Your task to perform on an android device: choose inbox layout in the gmail app Image 0: 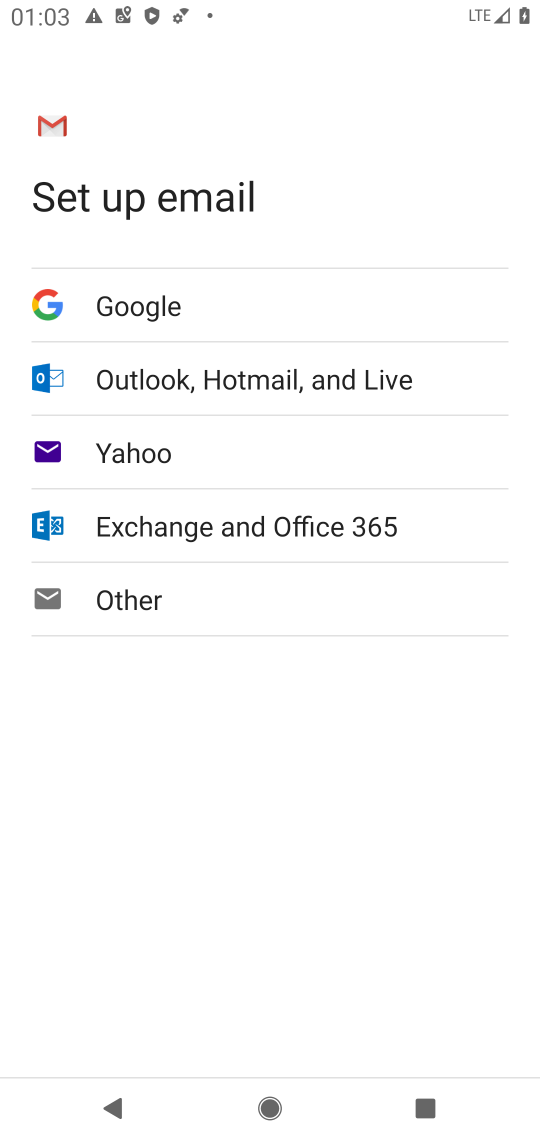
Step 0: press home button
Your task to perform on an android device: choose inbox layout in the gmail app Image 1: 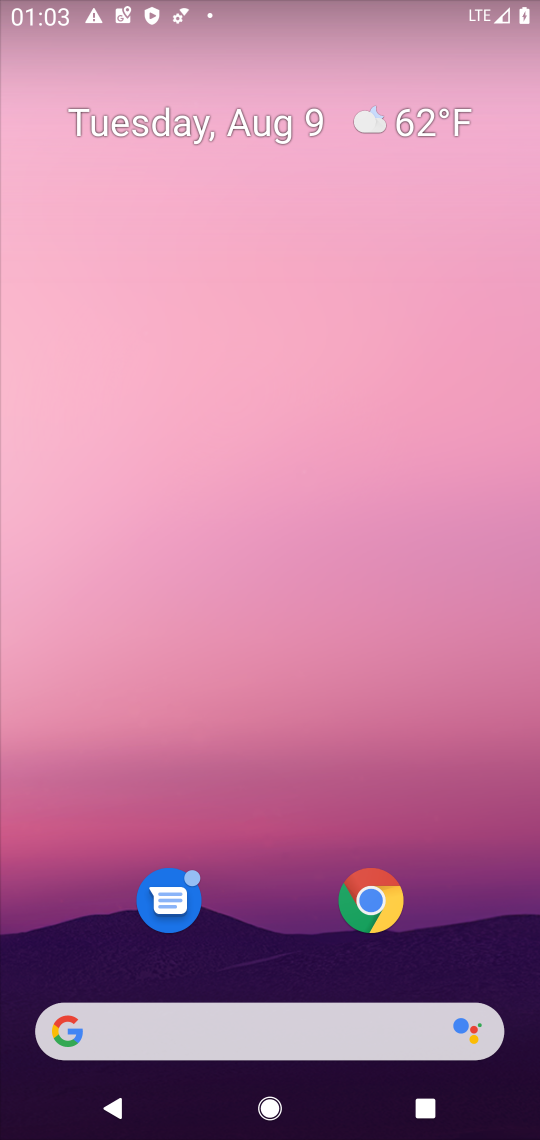
Step 1: drag from (282, 964) to (361, 255)
Your task to perform on an android device: choose inbox layout in the gmail app Image 2: 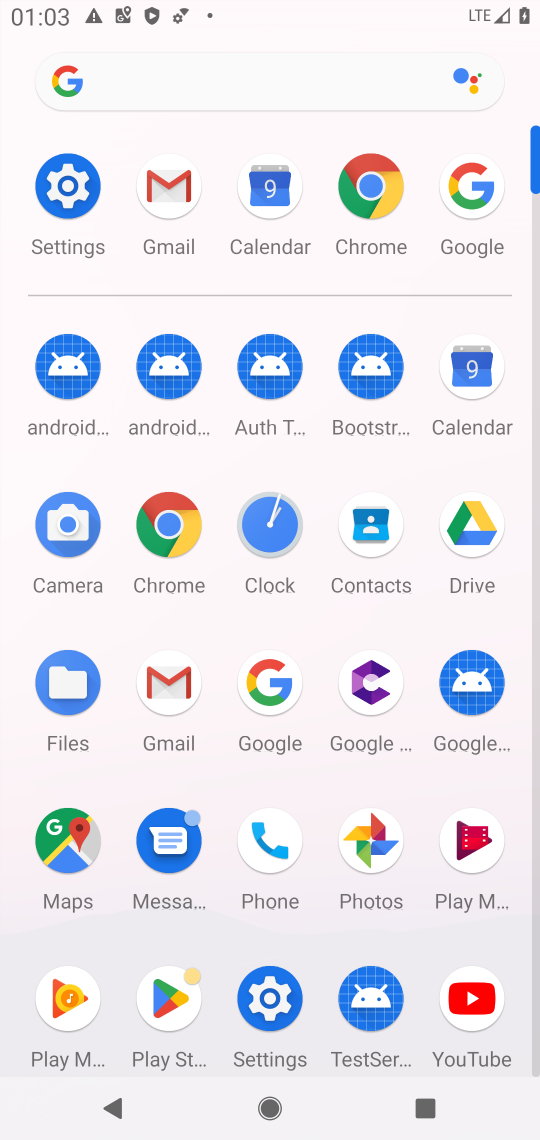
Step 2: click (171, 183)
Your task to perform on an android device: choose inbox layout in the gmail app Image 3: 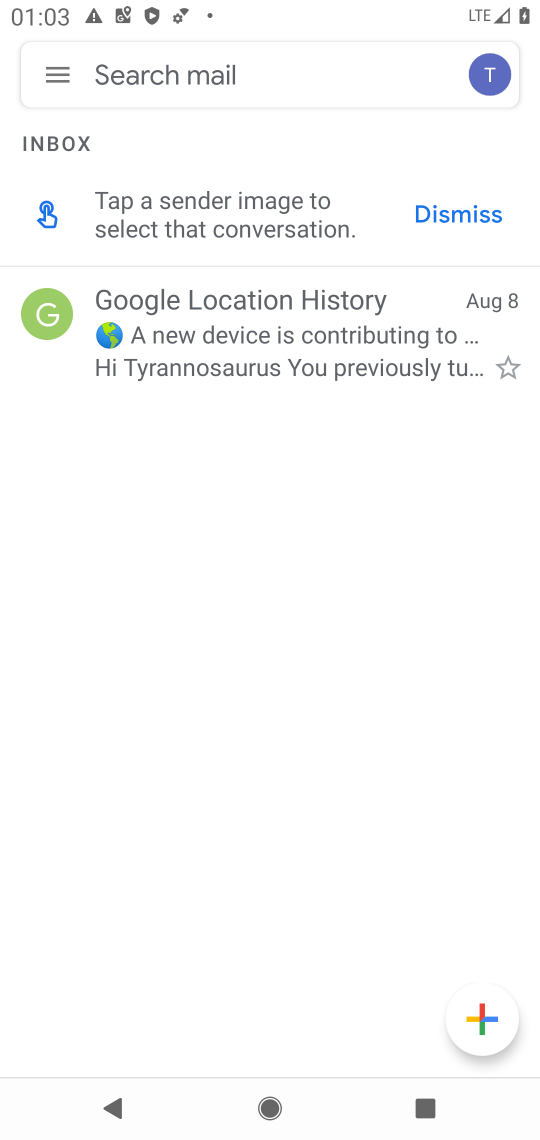
Step 3: click (60, 66)
Your task to perform on an android device: choose inbox layout in the gmail app Image 4: 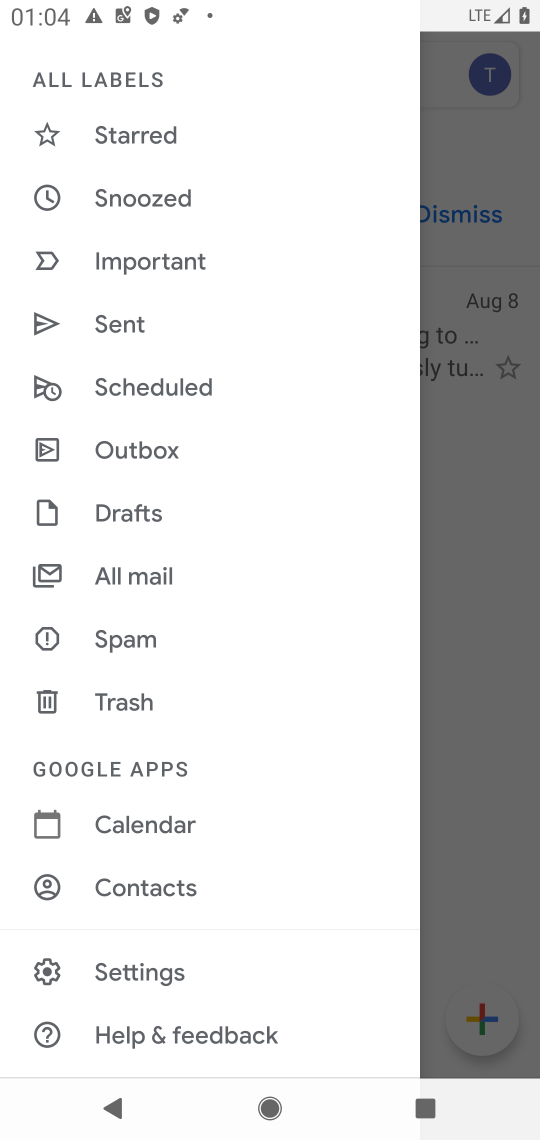
Step 4: click (226, 977)
Your task to perform on an android device: choose inbox layout in the gmail app Image 5: 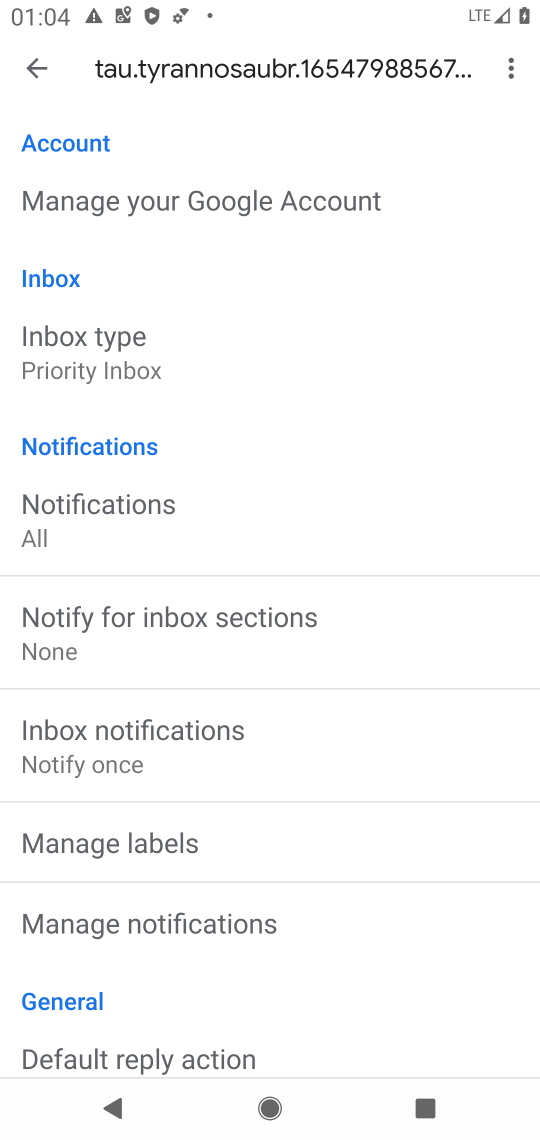
Step 5: drag from (425, 707) to (451, 503)
Your task to perform on an android device: choose inbox layout in the gmail app Image 6: 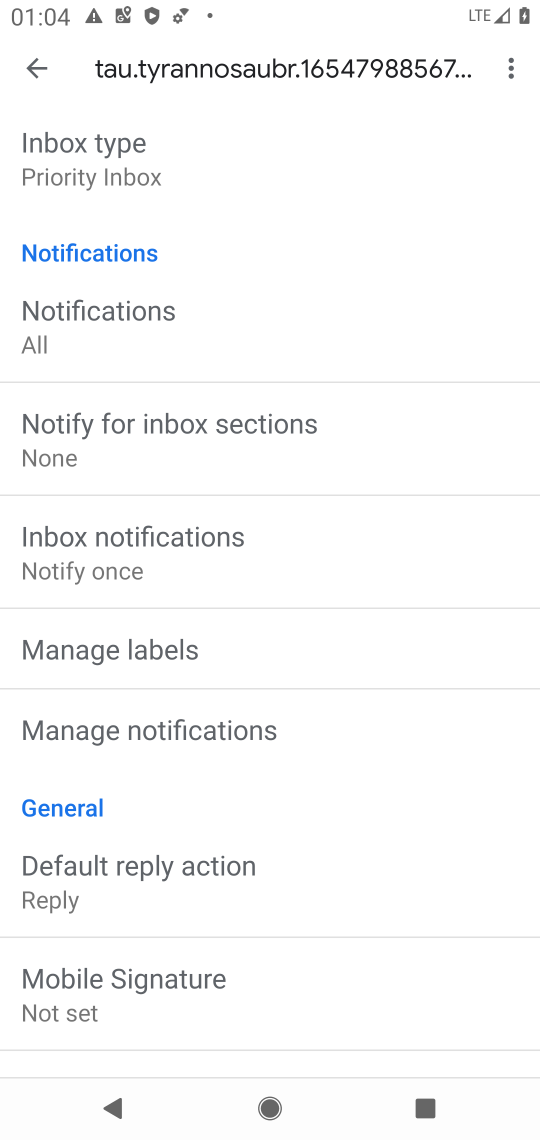
Step 6: drag from (429, 713) to (427, 499)
Your task to perform on an android device: choose inbox layout in the gmail app Image 7: 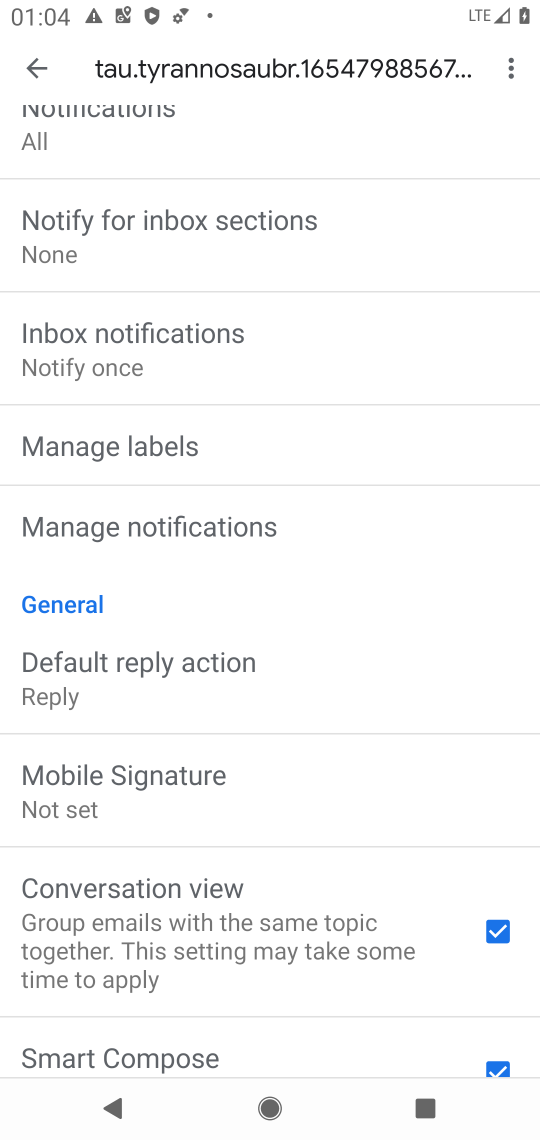
Step 7: drag from (417, 743) to (422, 548)
Your task to perform on an android device: choose inbox layout in the gmail app Image 8: 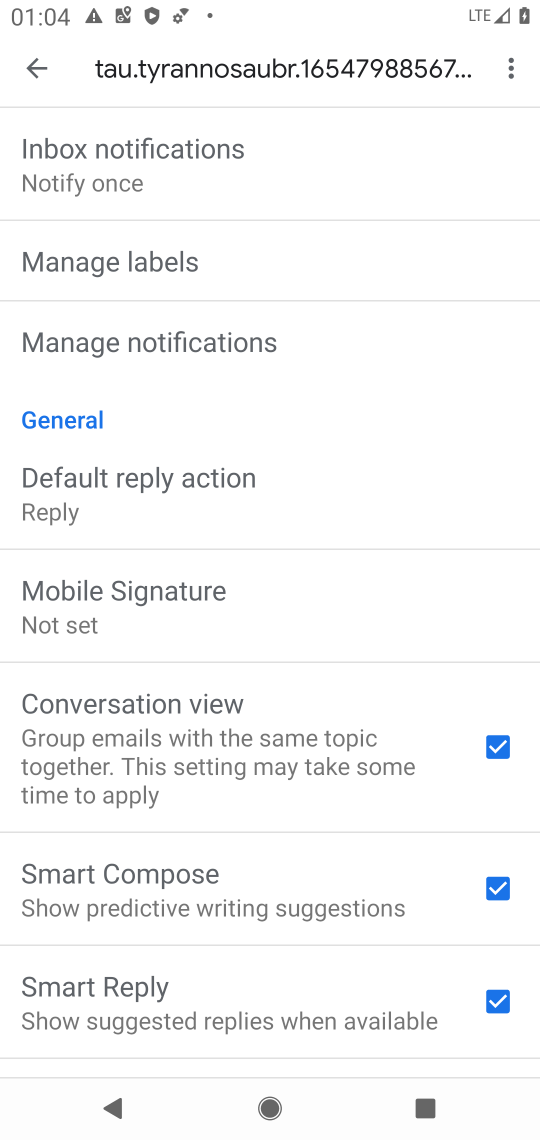
Step 8: drag from (419, 826) to (431, 472)
Your task to perform on an android device: choose inbox layout in the gmail app Image 9: 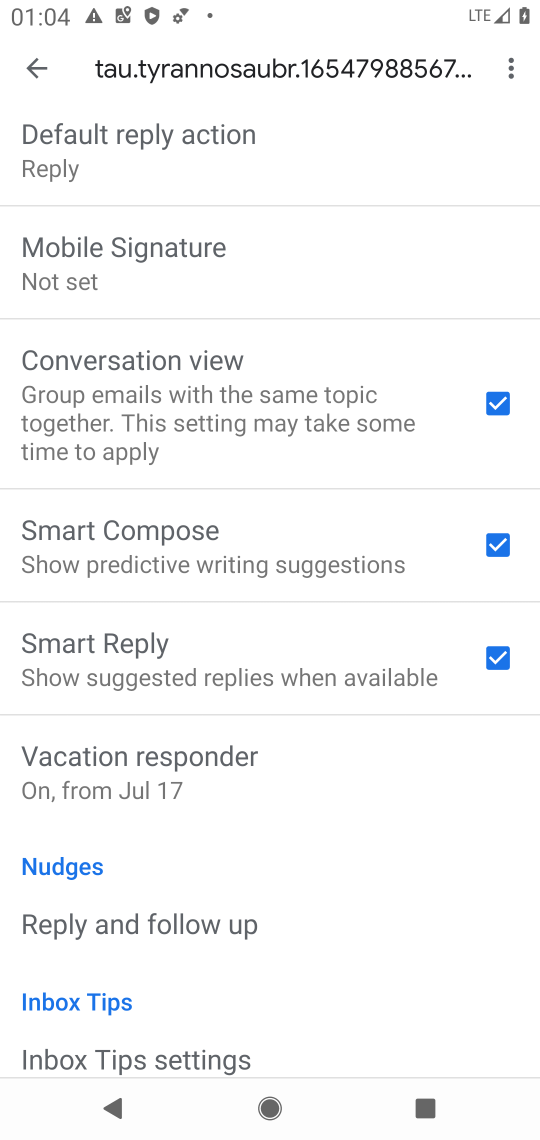
Step 9: drag from (408, 841) to (436, 442)
Your task to perform on an android device: choose inbox layout in the gmail app Image 10: 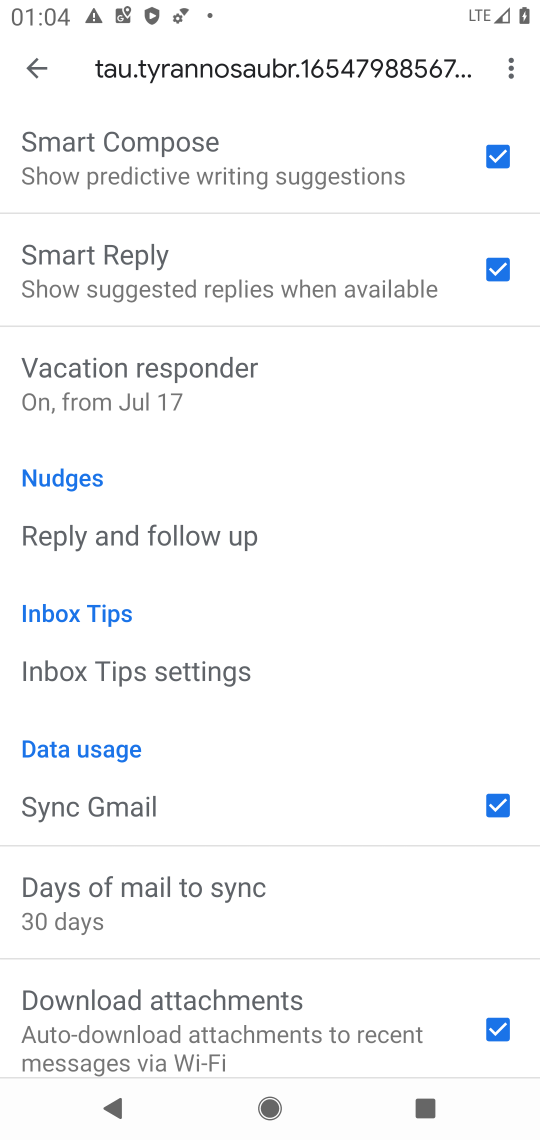
Step 10: drag from (362, 885) to (405, 405)
Your task to perform on an android device: choose inbox layout in the gmail app Image 11: 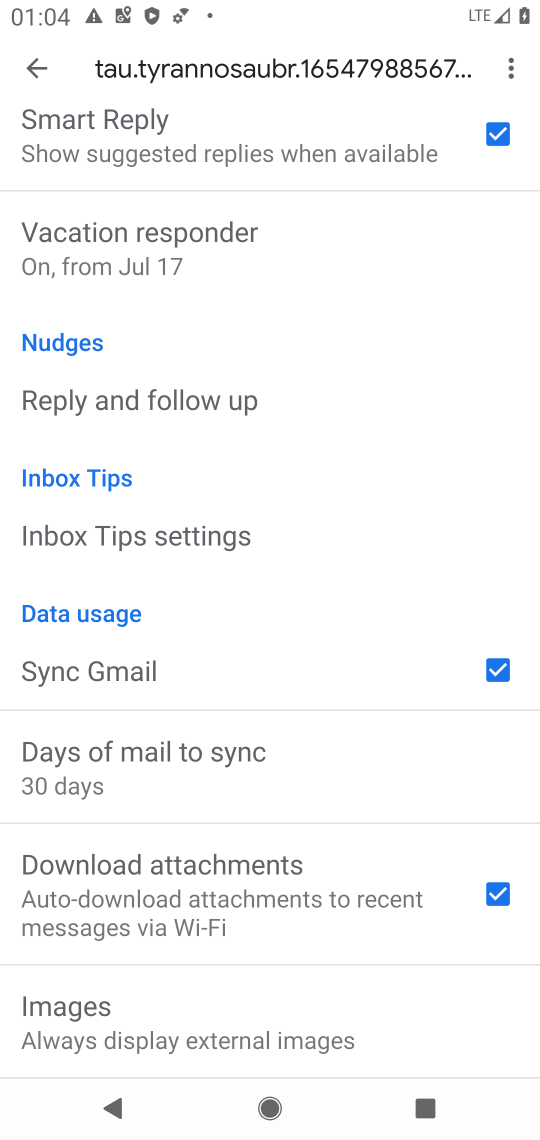
Step 11: drag from (391, 249) to (412, 631)
Your task to perform on an android device: choose inbox layout in the gmail app Image 12: 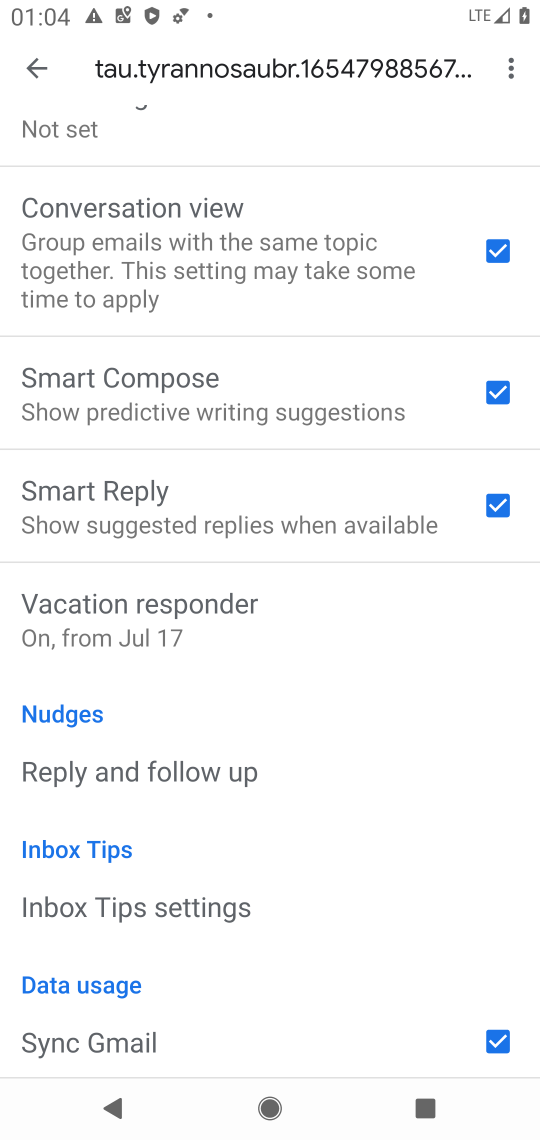
Step 12: drag from (393, 472) to (427, 735)
Your task to perform on an android device: choose inbox layout in the gmail app Image 13: 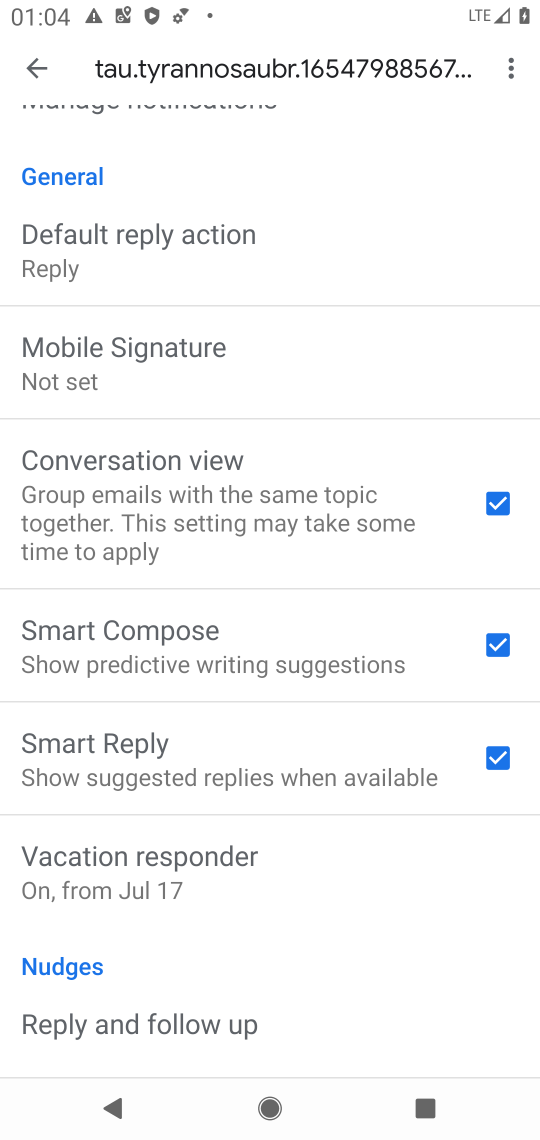
Step 13: drag from (384, 271) to (389, 589)
Your task to perform on an android device: choose inbox layout in the gmail app Image 14: 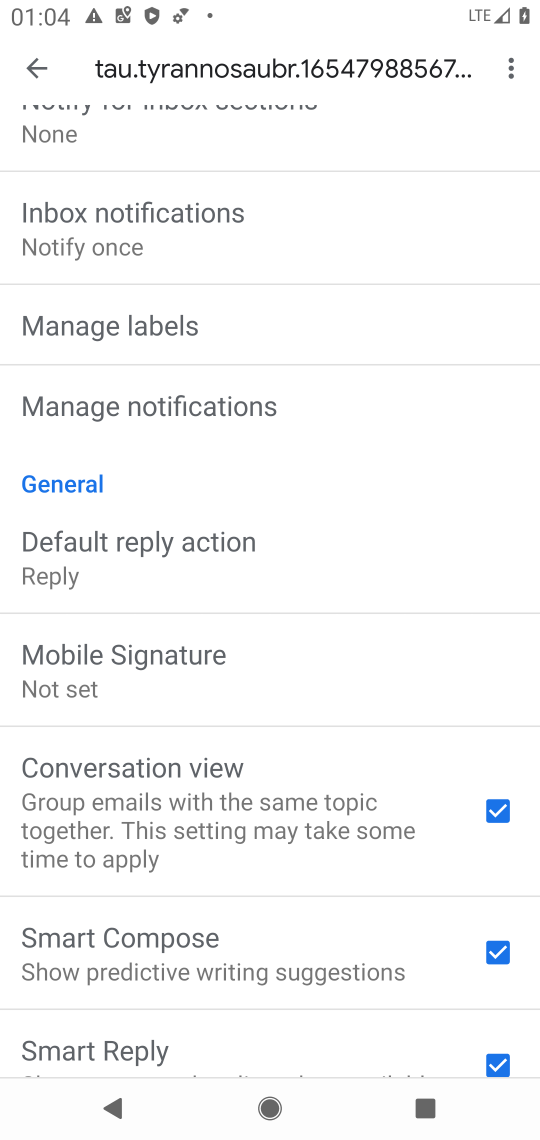
Step 14: drag from (365, 232) to (367, 552)
Your task to perform on an android device: choose inbox layout in the gmail app Image 15: 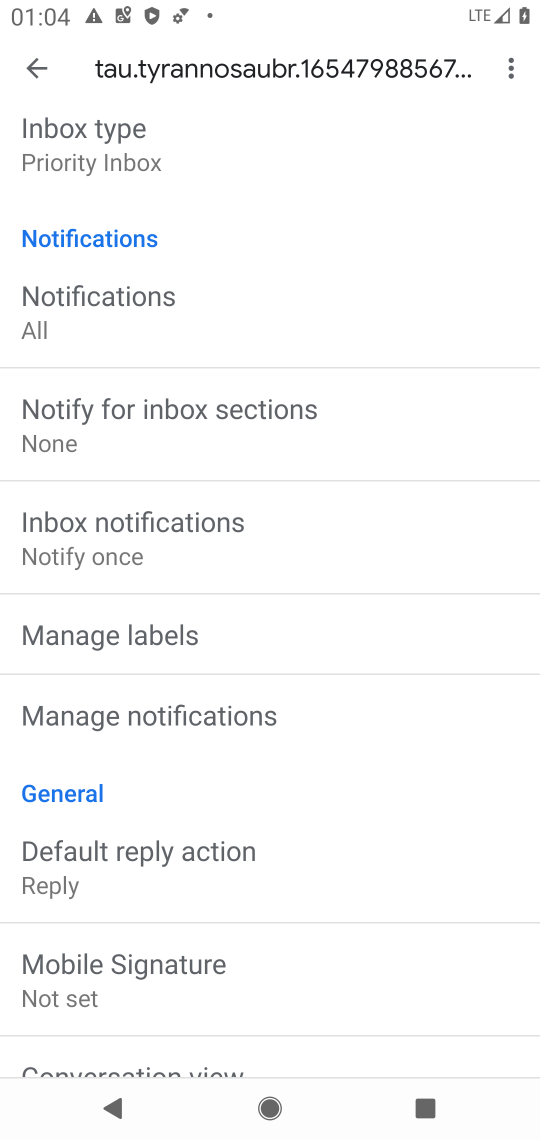
Step 15: drag from (434, 419) to (430, 650)
Your task to perform on an android device: choose inbox layout in the gmail app Image 16: 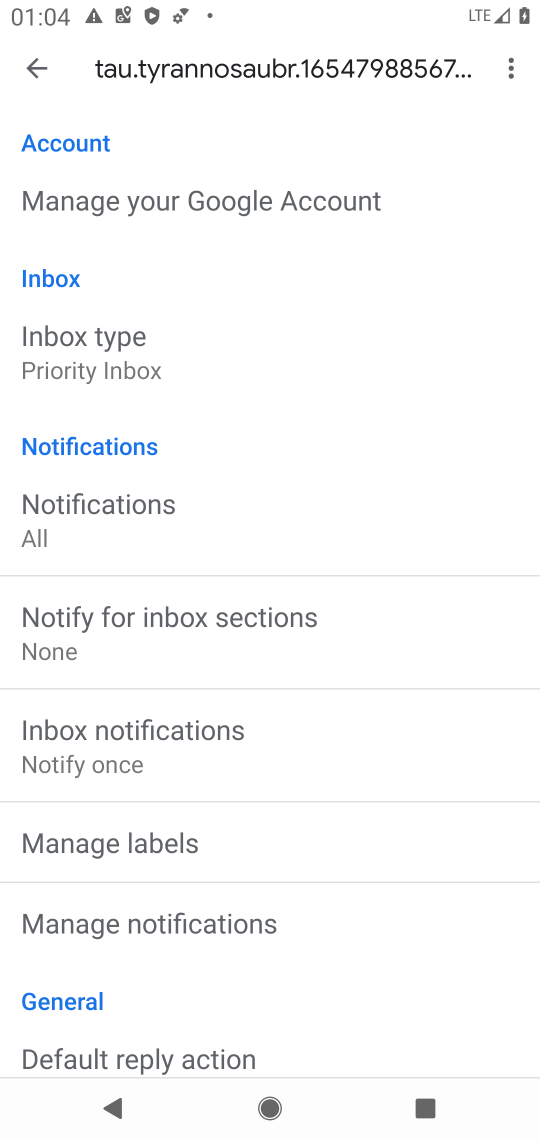
Step 16: drag from (384, 341) to (404, 592)
Your task to perform on an android device: choose inbox layout in the gmail app Image 17: 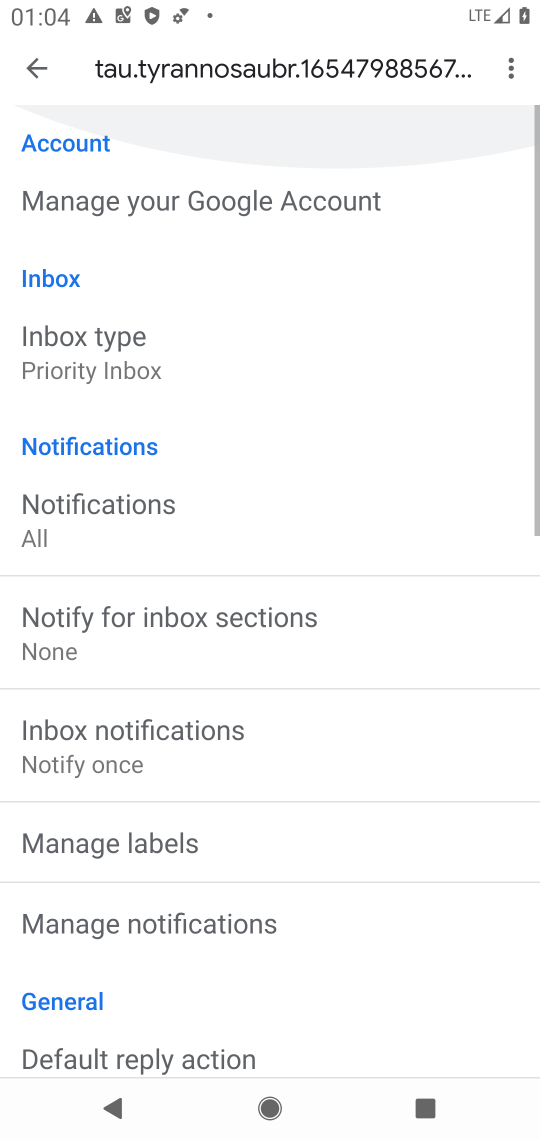
Step 17: click (214, 382)
Your task to perform on an android device: choose inbox layout in the gmail app Image 18: 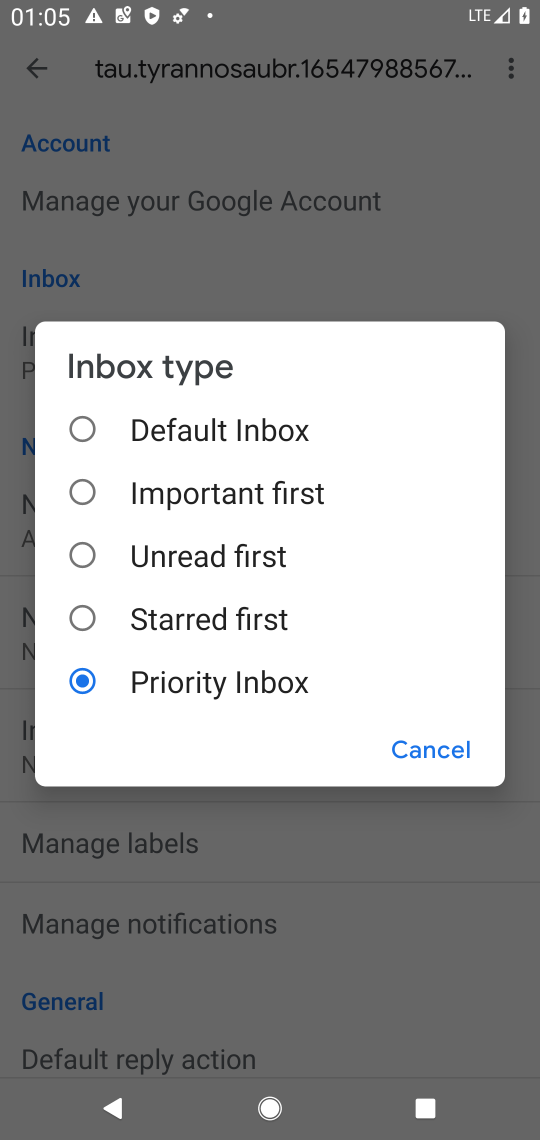
Step 18: click (247, 486)
Your task to perform on an android device: choose inbox layout in the gmail app Image 19: 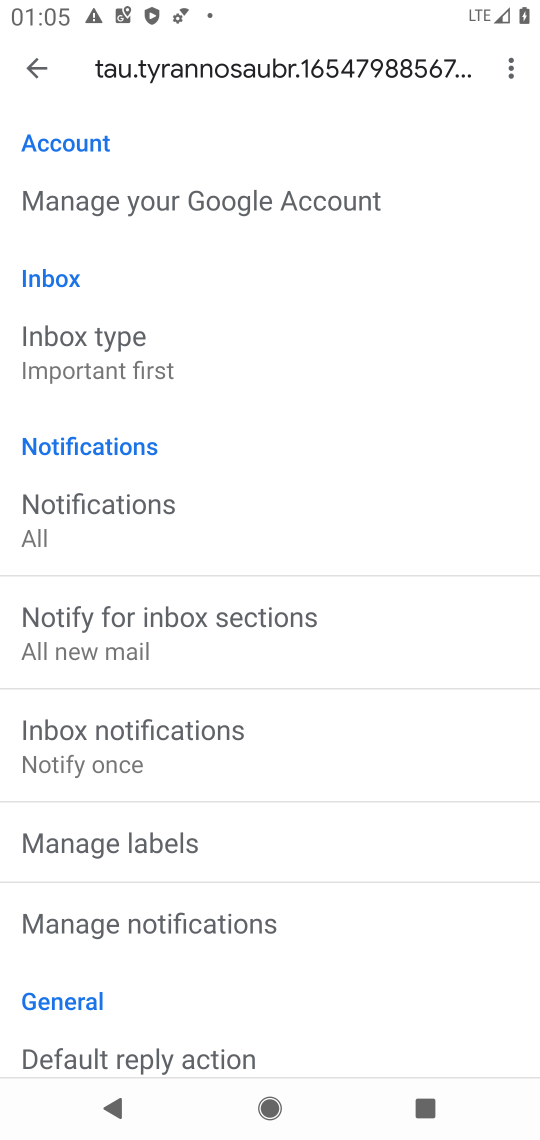
Step 19: task complete